Your task to perform on an android device: change the clock style Image 0: 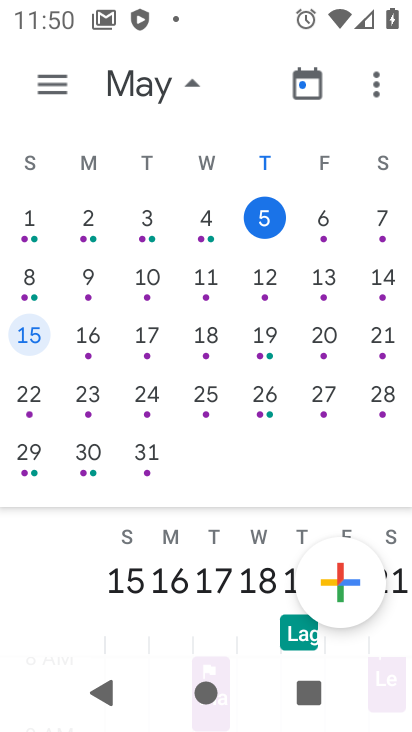
Step 0: press home button
Your task to perform on an android device: change the clock style Image 1: 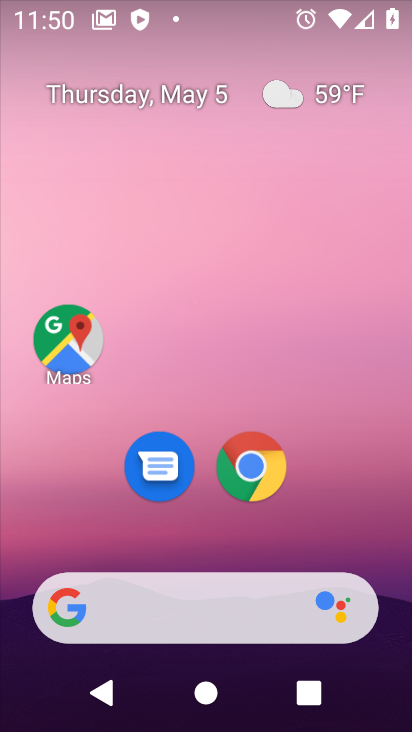
Step 1: drag from (183, 493) to (184, 166)
Your task to perform on an android device: change the clock style Image 2: 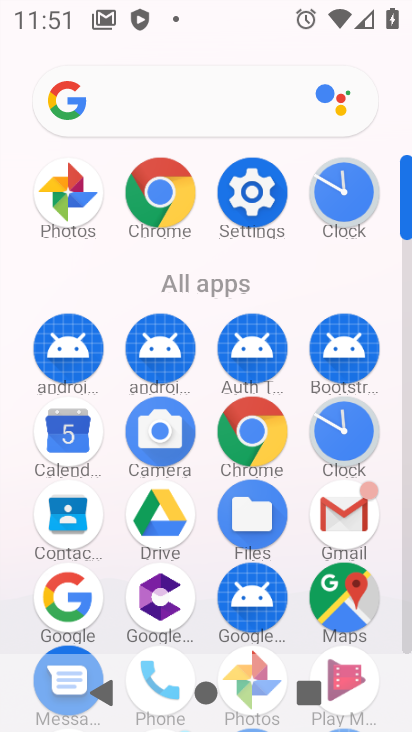
Step 2: click (342, 193)
Your task to perform on an android device: change the clock style Image 3: 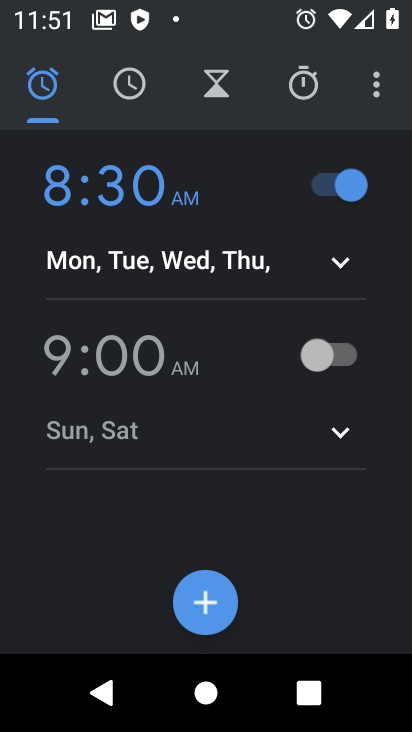
Step 3: click (375, 82)
Your task to perform on an android device: change the clock style Image 4: 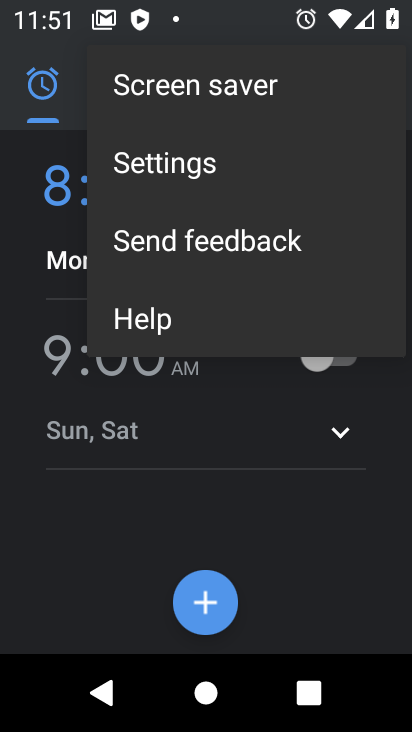
Step 4: click (221, 178)
Your task to perform on an android device: change the clock style Image 5: 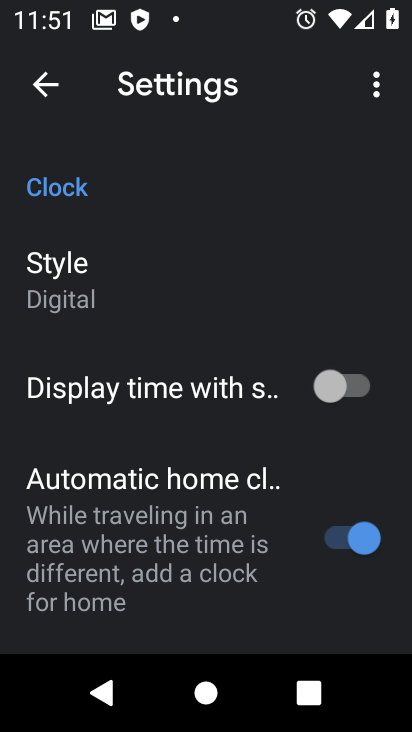
Step 5: drag from (154, 556) to (194, 157)
Your task to perform on an android device: change the clock style Image 6: 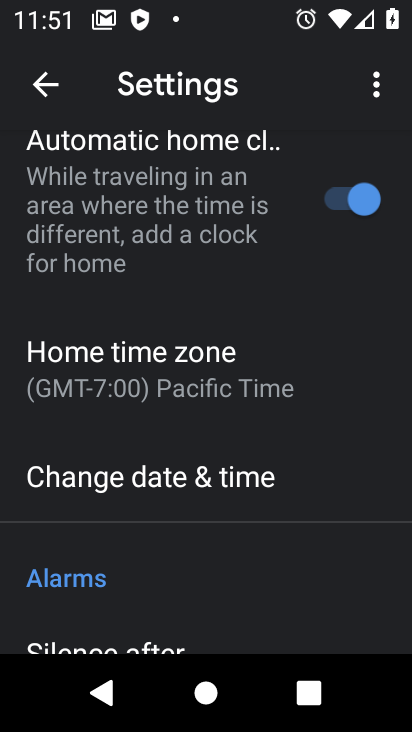
Step 6: drag from (126, 545) to (151, 237)
Your task to perform on an android device: change the clock style Image 7: 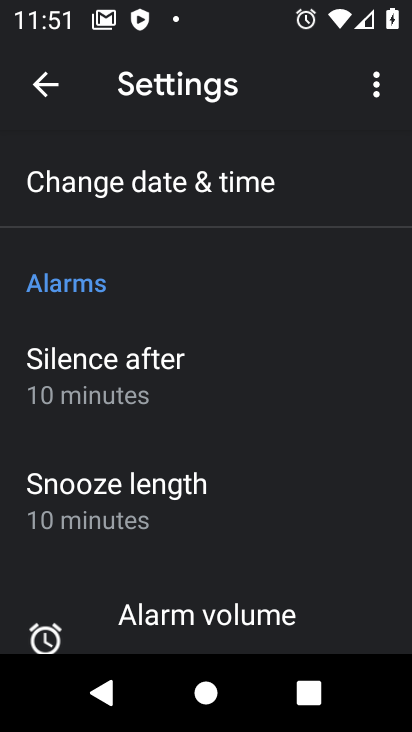
Step 7: drag from (187, 612) to (222, 244)
Your task to perform on an android device: change the clock style Image 8: 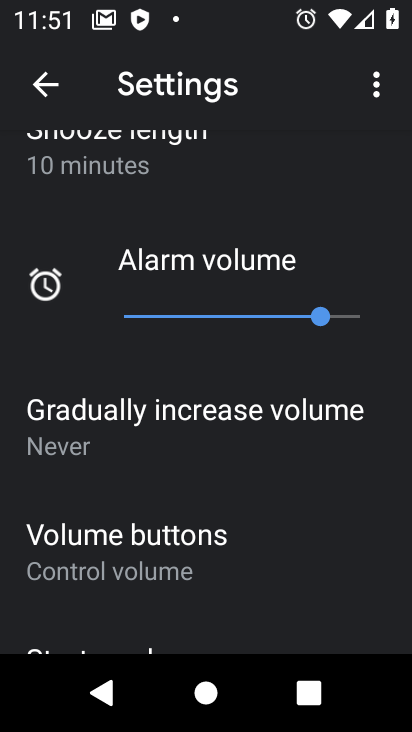
Step 8: drag from (220, 611) to (263, 244)
Your task to perform on an android device: change the clock style Image 9: 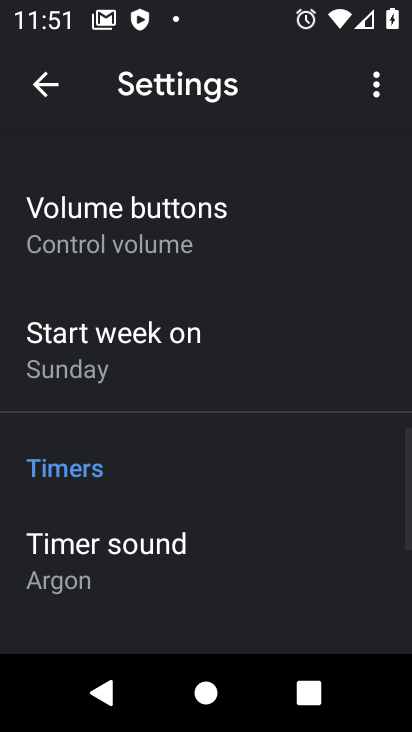
Step 9: drag from (160, 565) to (232, 241)
Your task to perform on an android device: change the clock style Image 10: 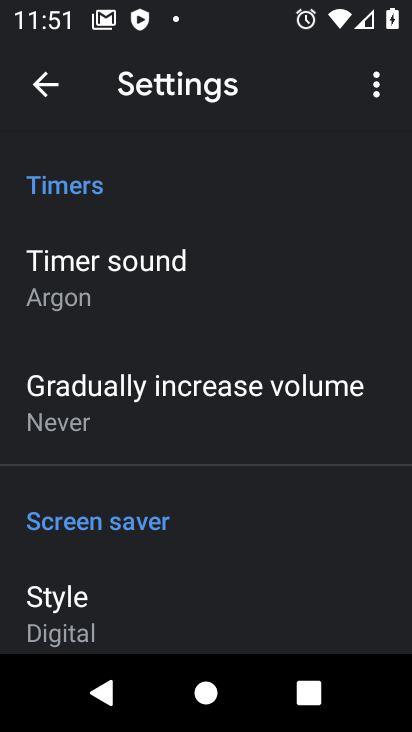
Step 10: click (83, 605)
Your task to perform on an android device: change the clock style Image 11: 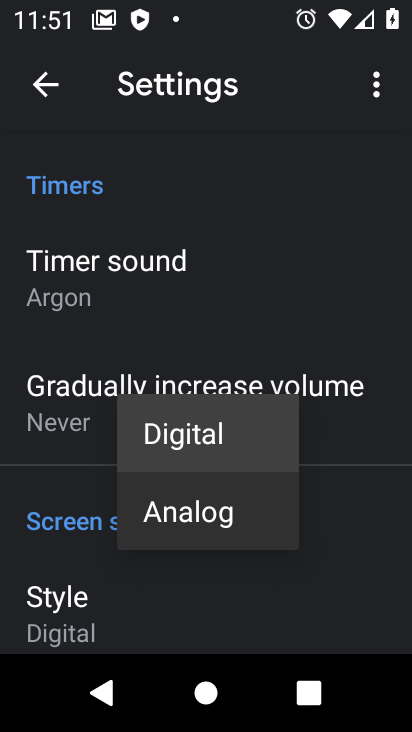
Step 11: click (212, 505)
Your task to perform on an android device: change the clock style Image 12: 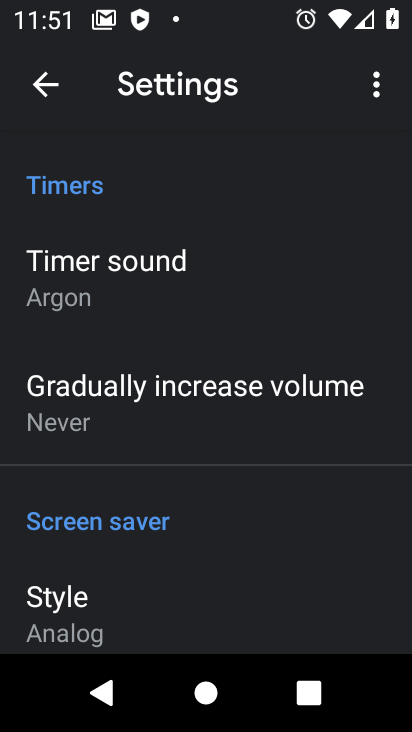
Step 12: task complete